Your task to perform on an android device: find which apps use the phone's location Image 0: 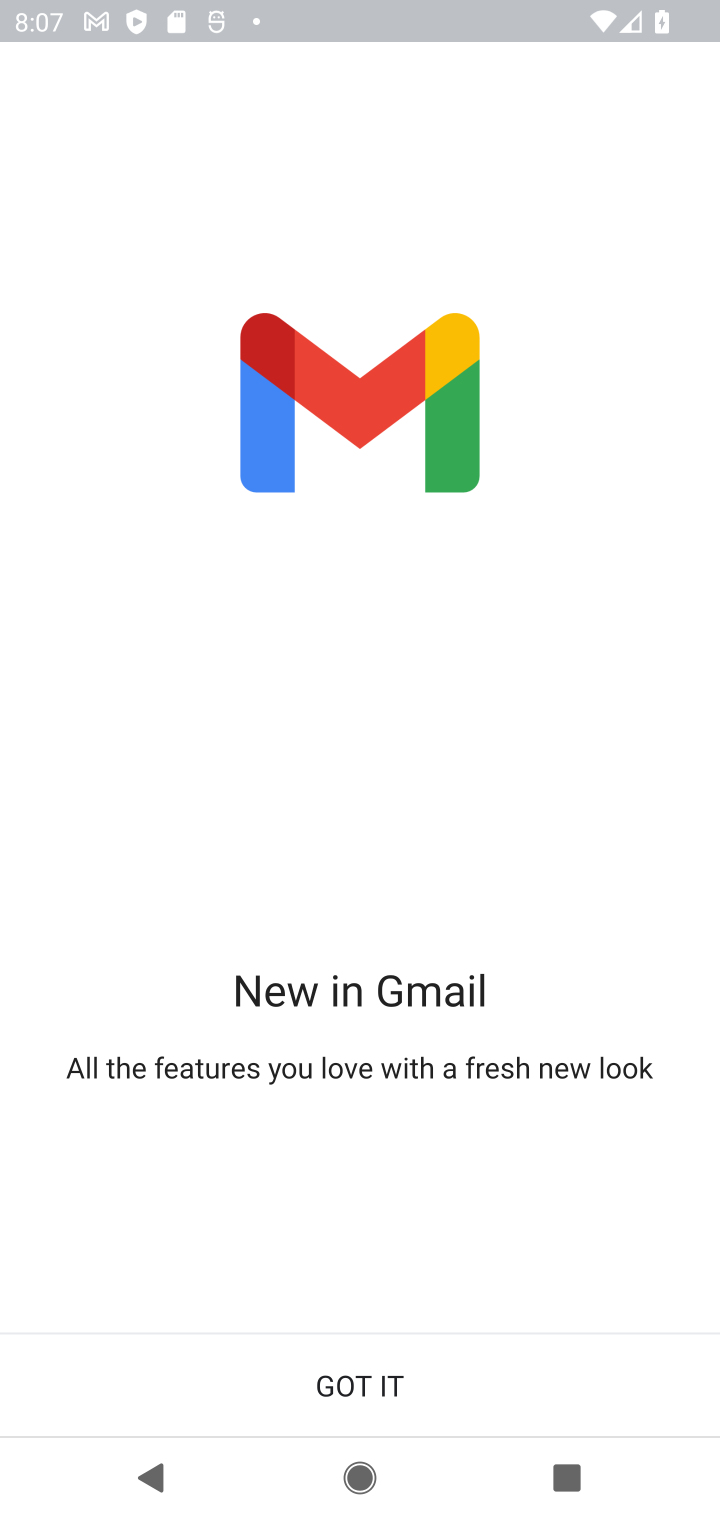
Step 0: press home button
Your task to perform on an android device: find which apps use the phone's location Image 1: 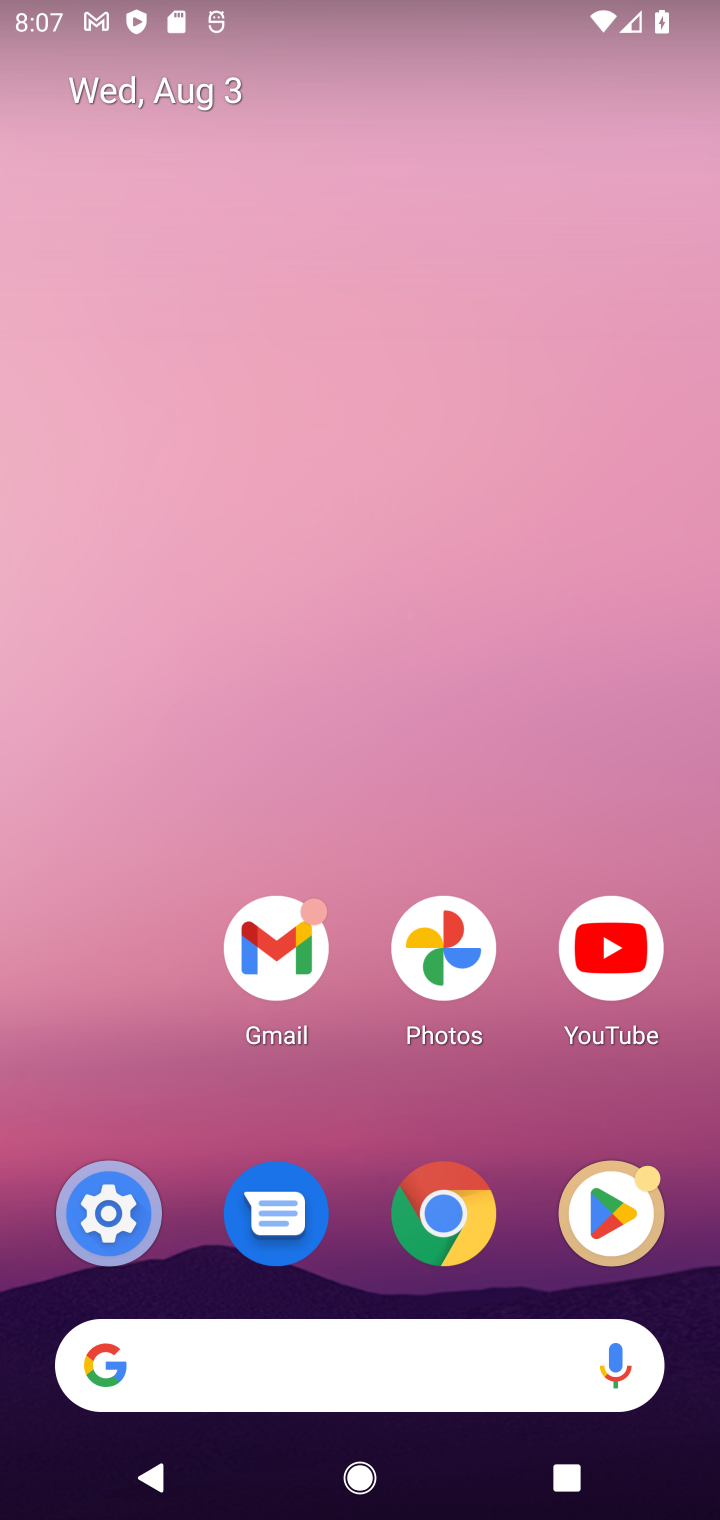
Step 1: drag from (180, 1077) to (257, 164)
Your task to perform on an android device: find which apps use the phone's location Image 2: 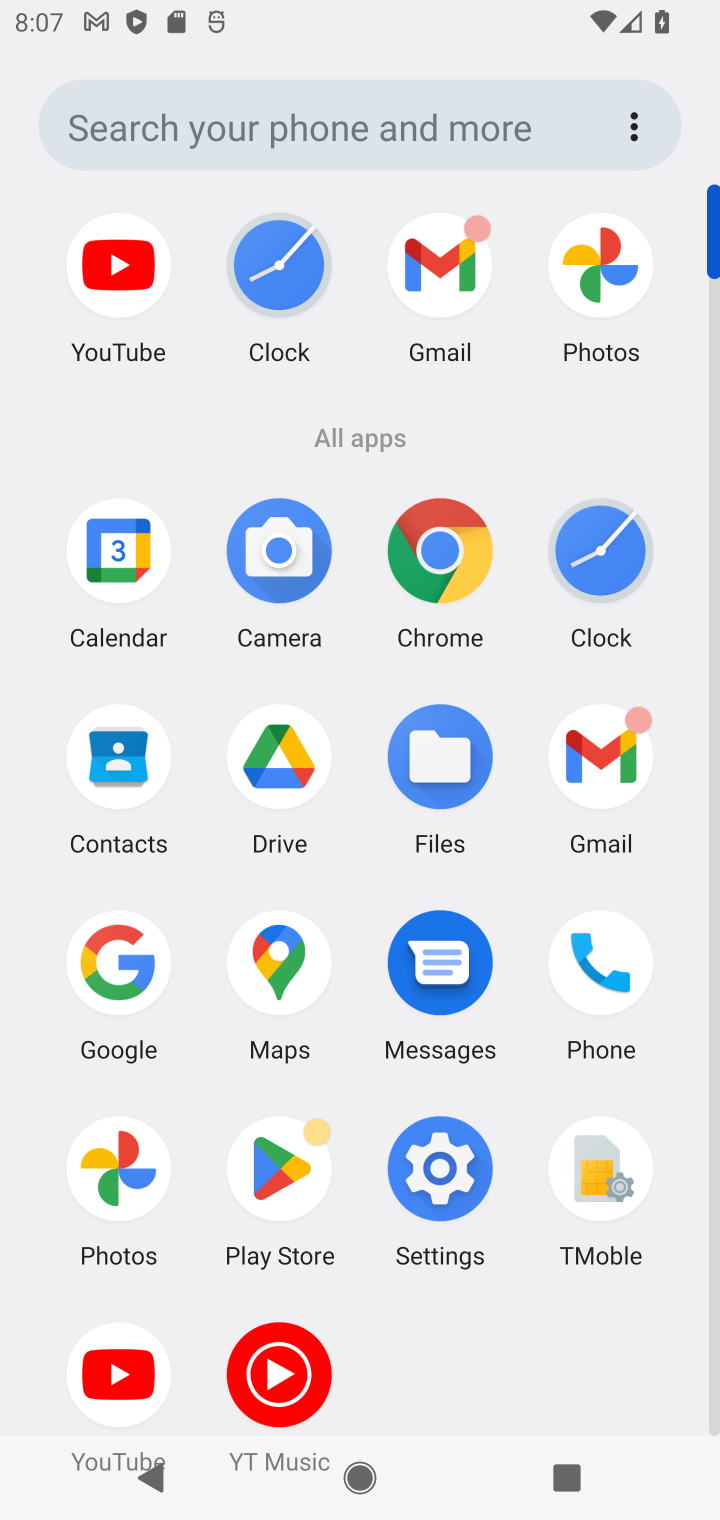
Step 2: click (576, 968)
Your task to perform on an android device: find which apps use the phone's location Image 3: 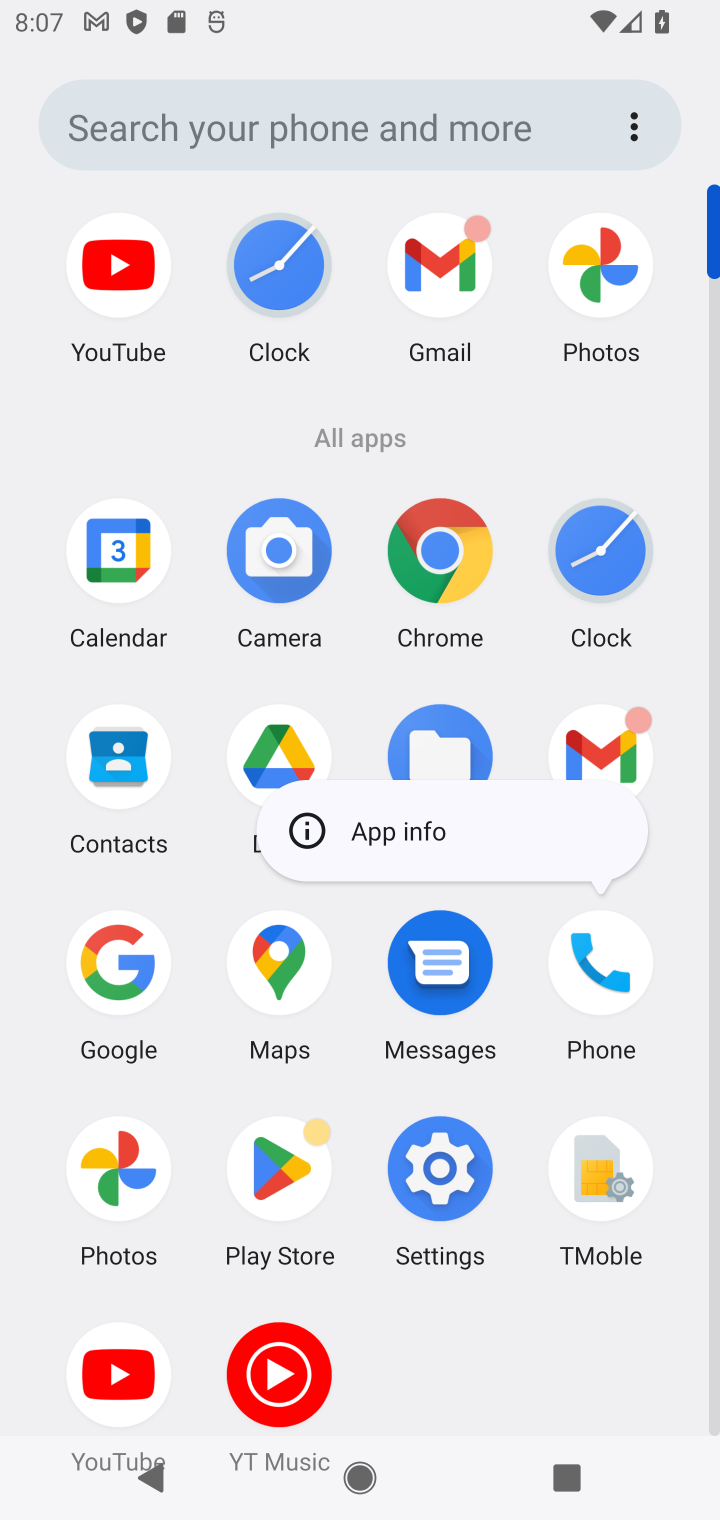
Step 3: click (455, 848)
Your task to perform on an android device: find which apps use the phone's location Image 4: 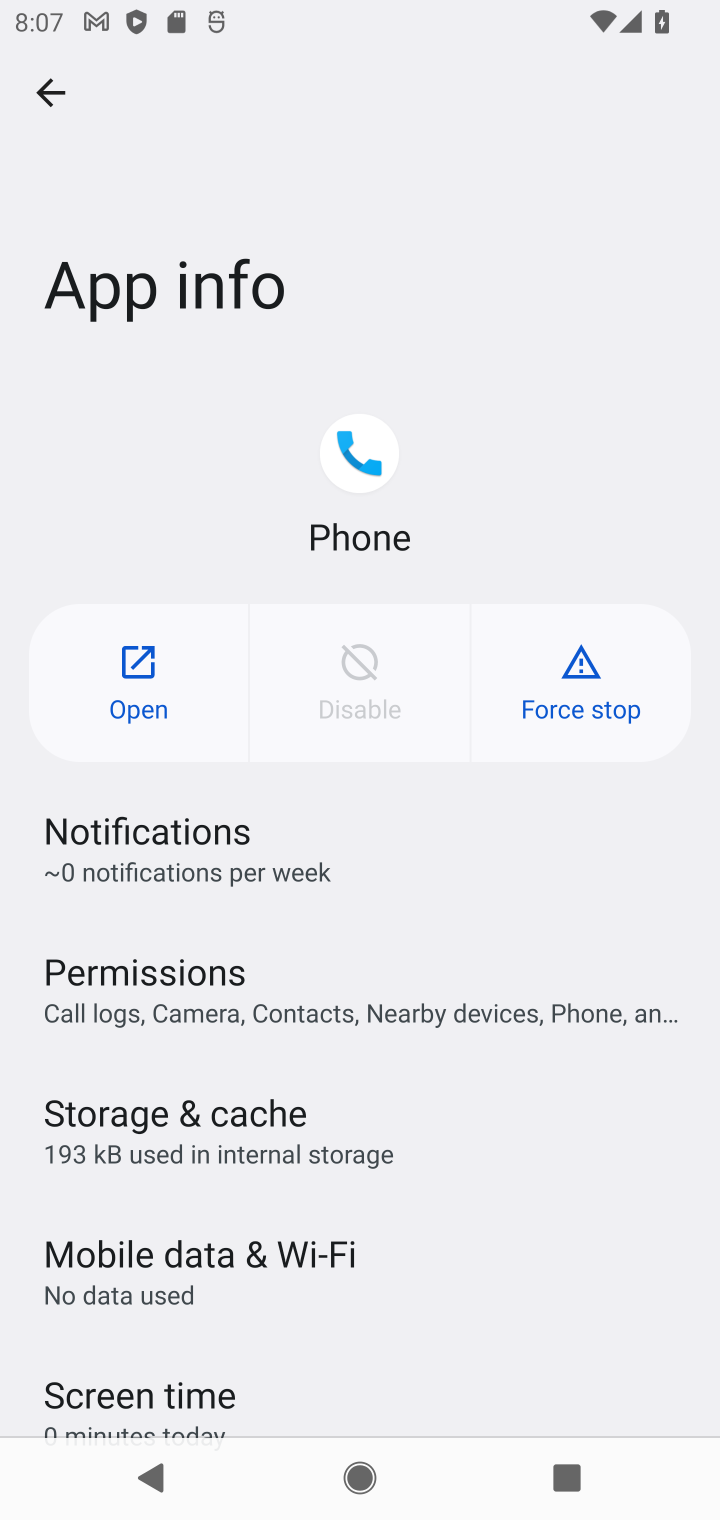
Step 4: click (113, 987)
Your task to perform on an android device: find which apps use the phone's location Image 5: 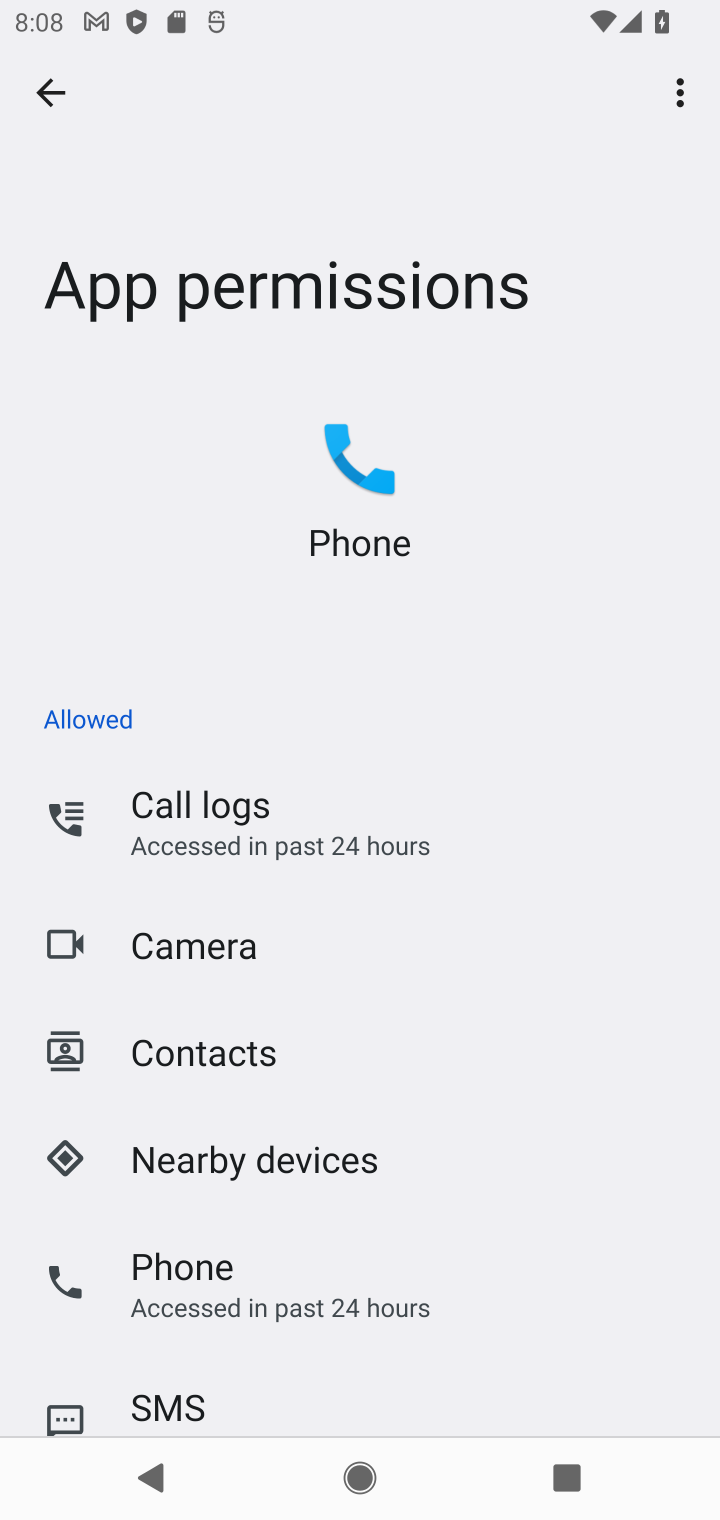
Step 5: drag from (548, 1297) to (556, 720)
Your task to perform on an android device: find which apps use the phone's location Image 6: 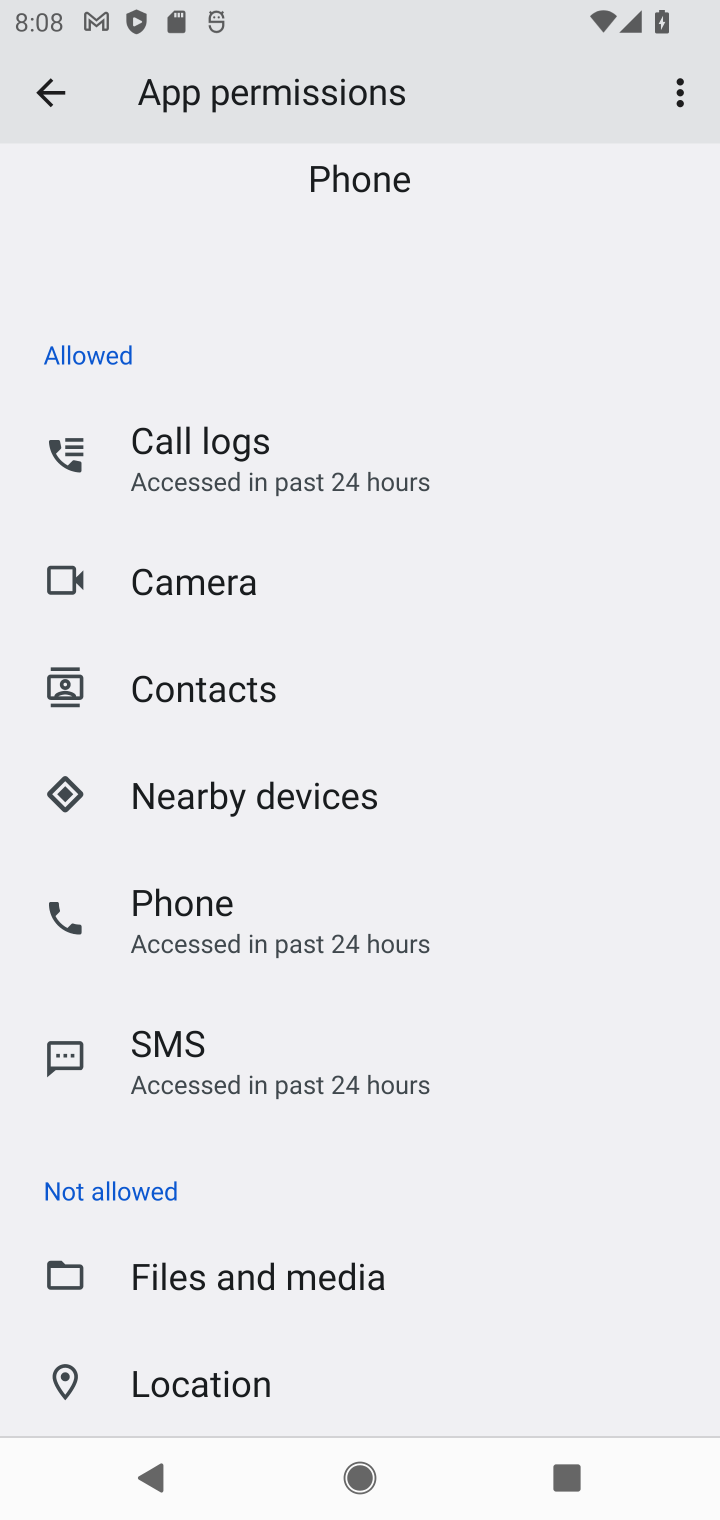
Step 6: click (211, 1389)
Your task to perform on an android device: find which apps use the phone's location Image 7: 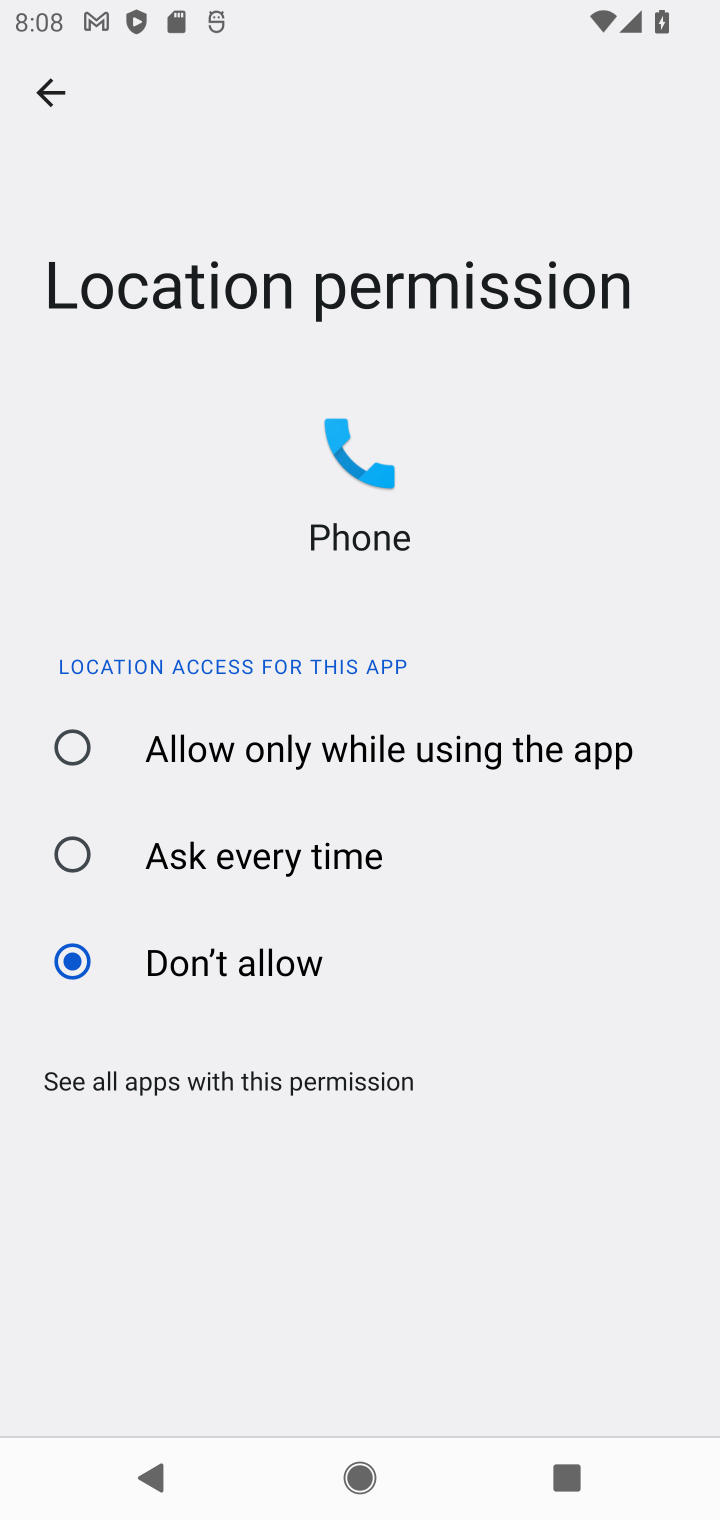
Step 7: task complete